Your task to perform on an android device: check battery use Image 0: 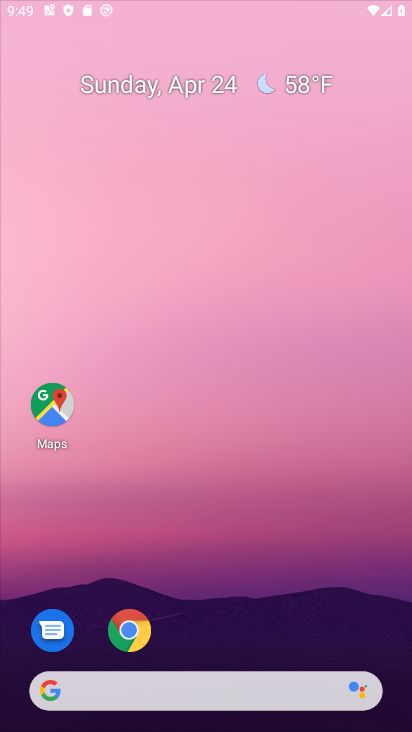
Step 0: drag from (302, 645) to (327, 218)
Your task to perform on an android device: check battery use Image 1: 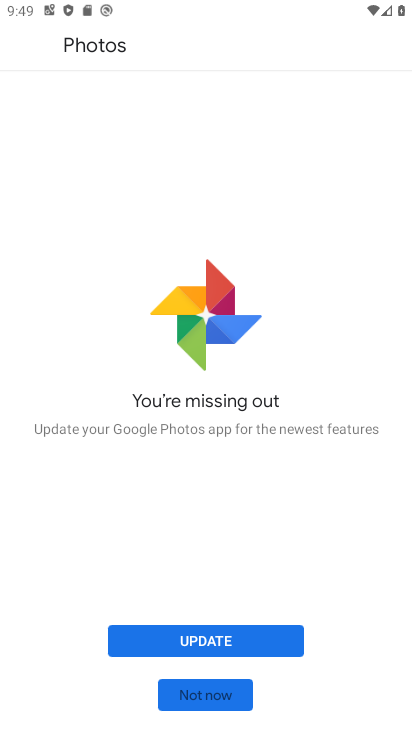
Step 1: press home button
Your task to perform on an android device: check battery use Image 2: 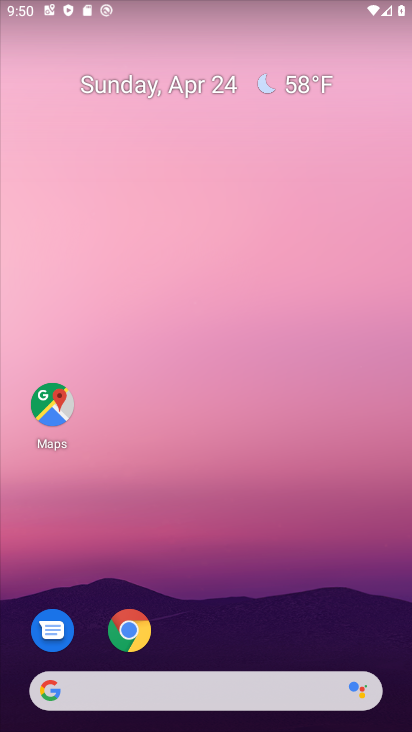
Step 2: drag from (243, 615) to (334, 41)
Your task to perform on an android device: check battery use Image 3: 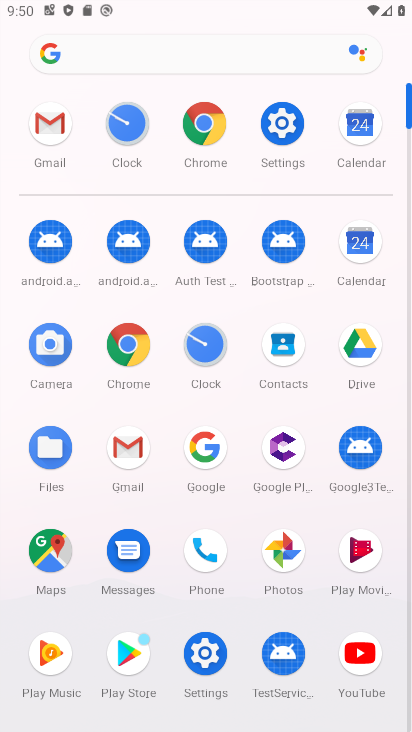
Step 3: click (293, 141)
Your task to perform on an android device: check battery use Image 4: 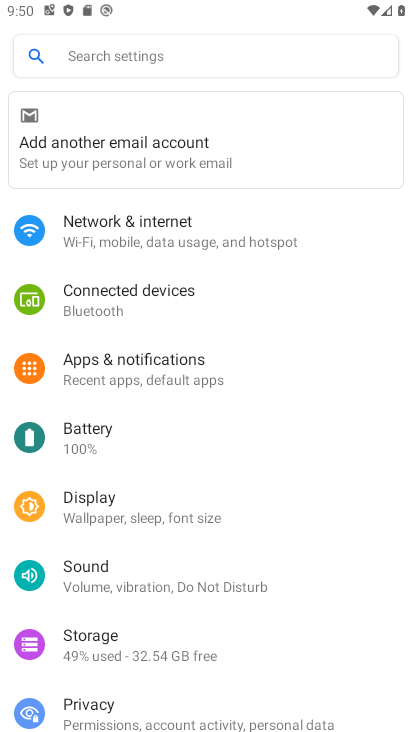
Step 4: click (188, 444)
Your task to perform on an android device: check battery use Image 5: 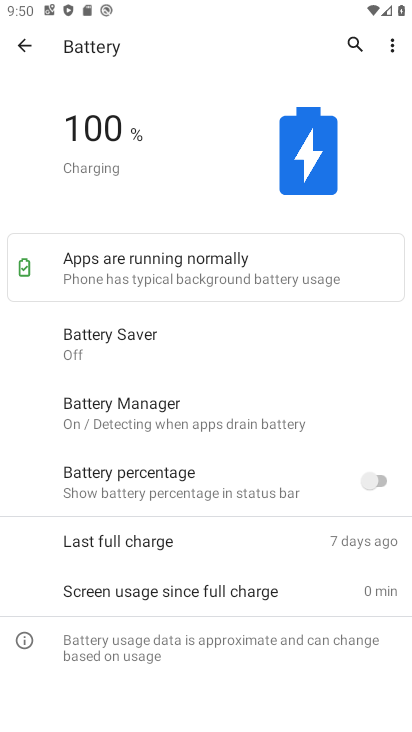
Step 5: task complete